Your task to perform on an android device: How do I get to the nearest Walmart? Image 0: 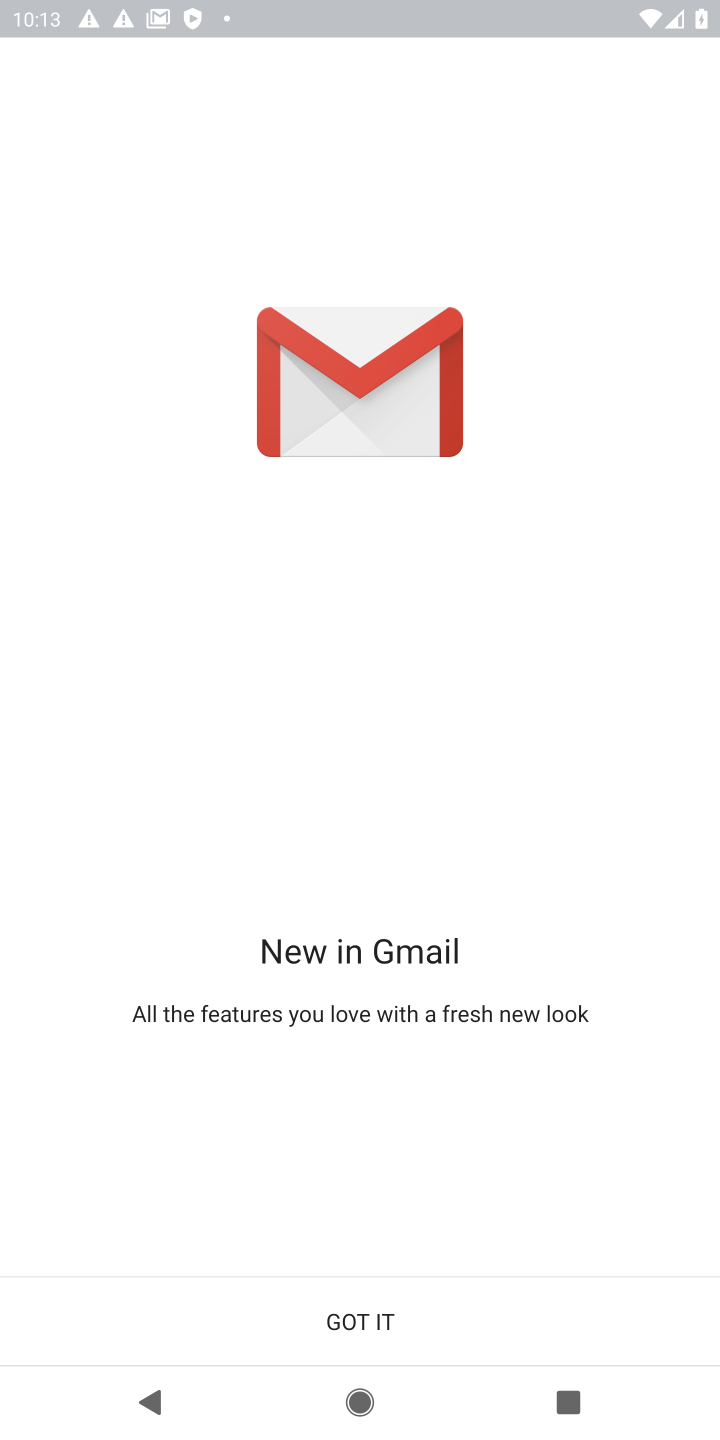
Step 0: press home button
Your task to perform on an android device: How do I get to the nearest Walmart? Image 1: 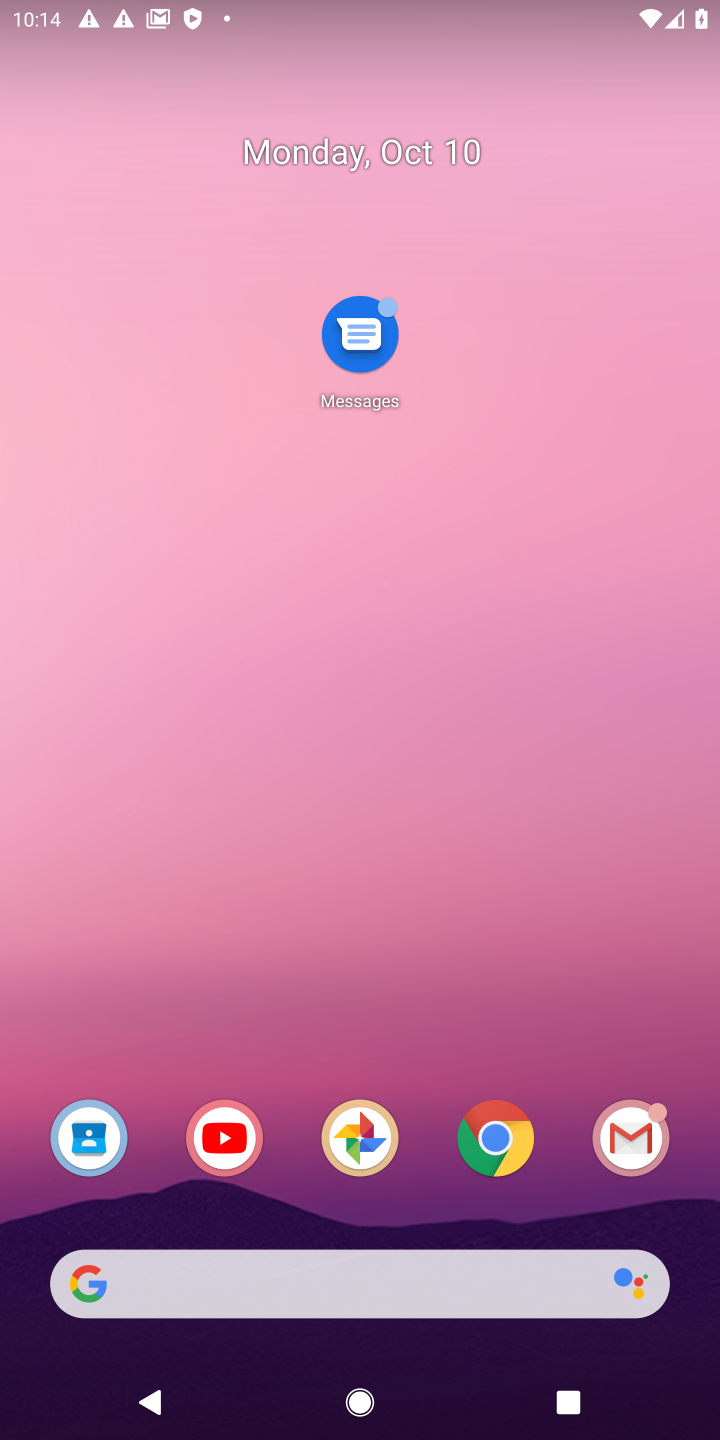
Step 1: click (530, 1151)
Your task to perform on an android device: How do I get to the nearest Walmart? Image 2: 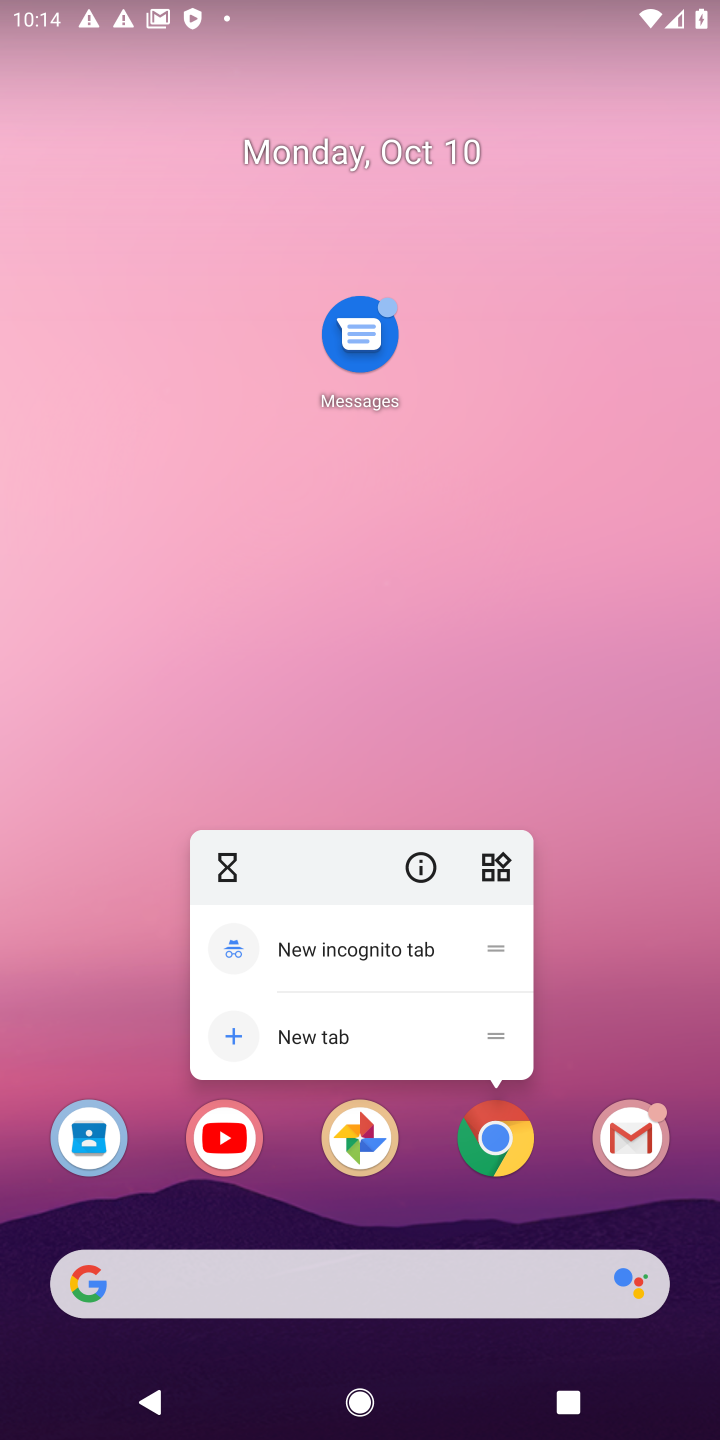
Step 2: click (502, 1135)
Your task to perform on an android device: How do I get to the nearest Walmart? Image 3: 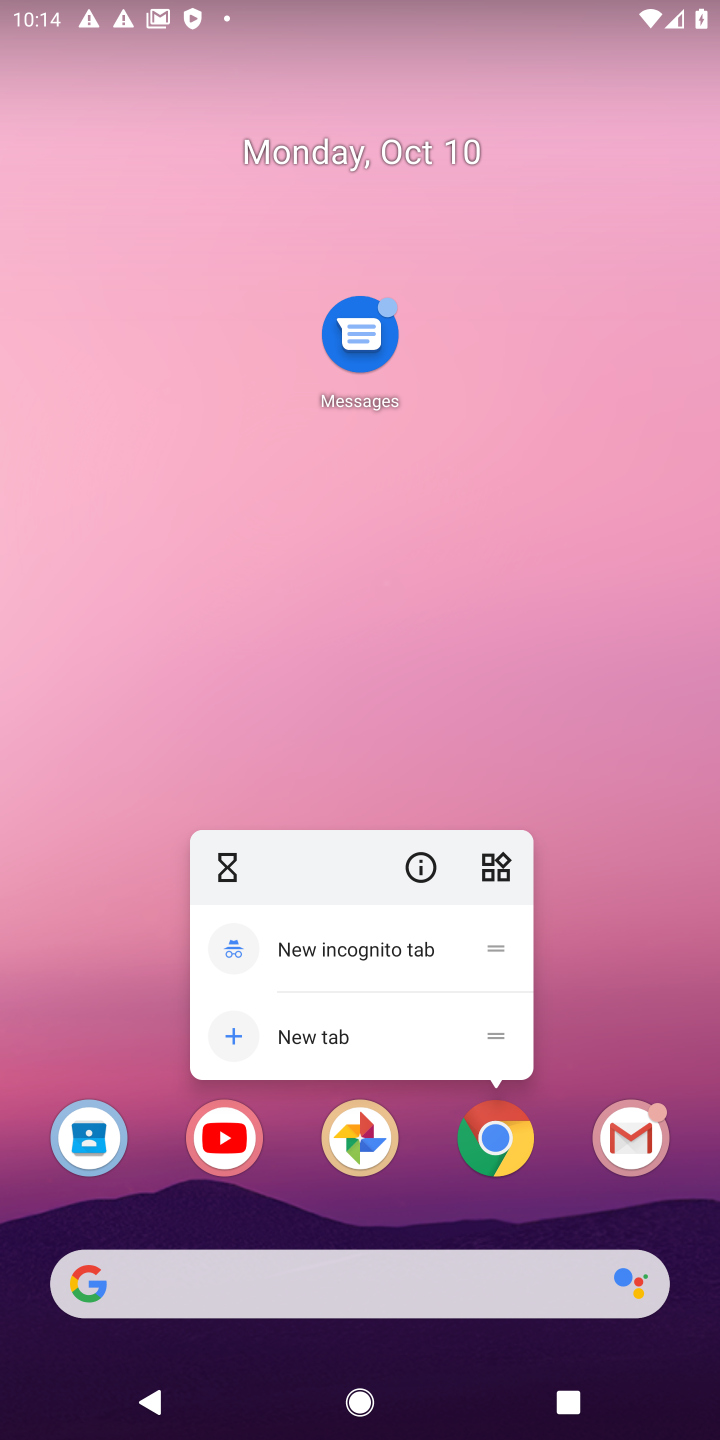
Step 3: click (496, 1152)
Your task to perform on an android device: How do I get to the nearest Walmart? Image 4: 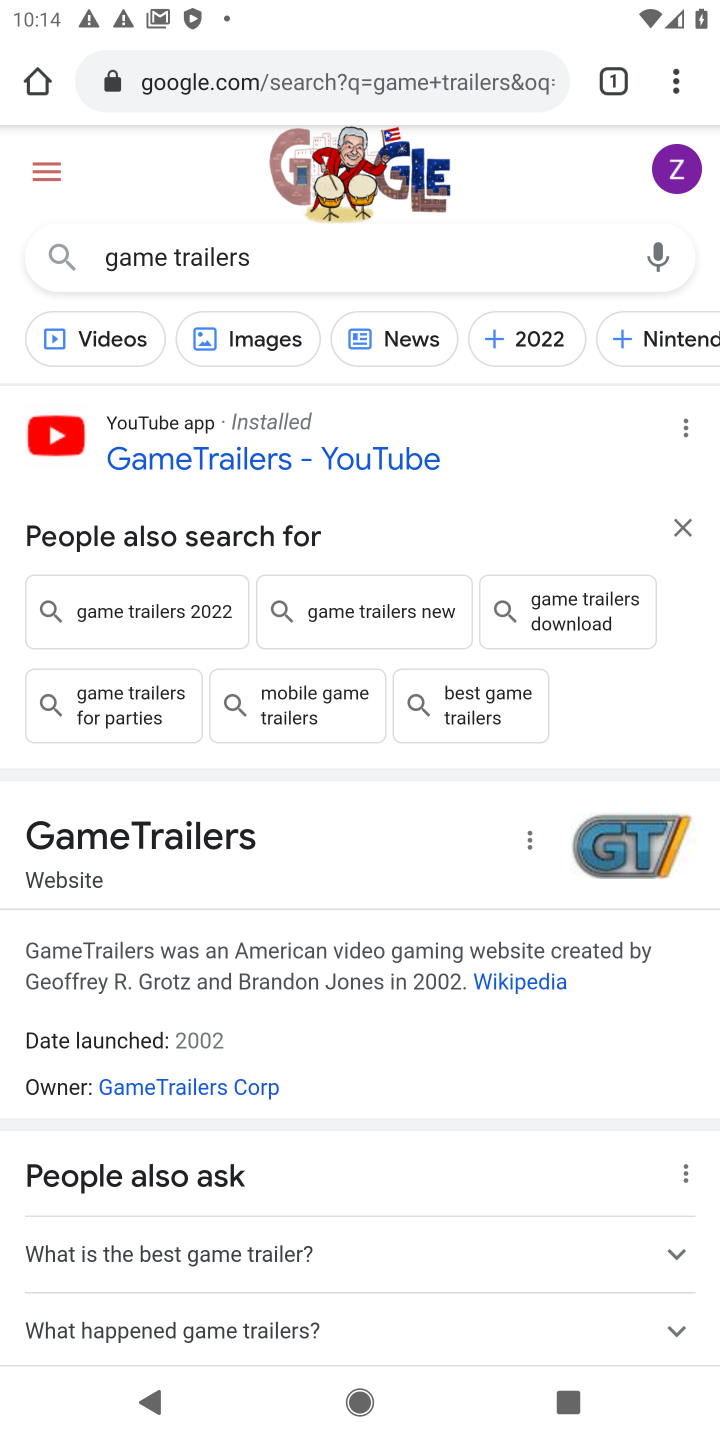
Step 4: click (353, 90)
Your task to perform on an android device: How do I get to the nearest Walmart? Image 5: 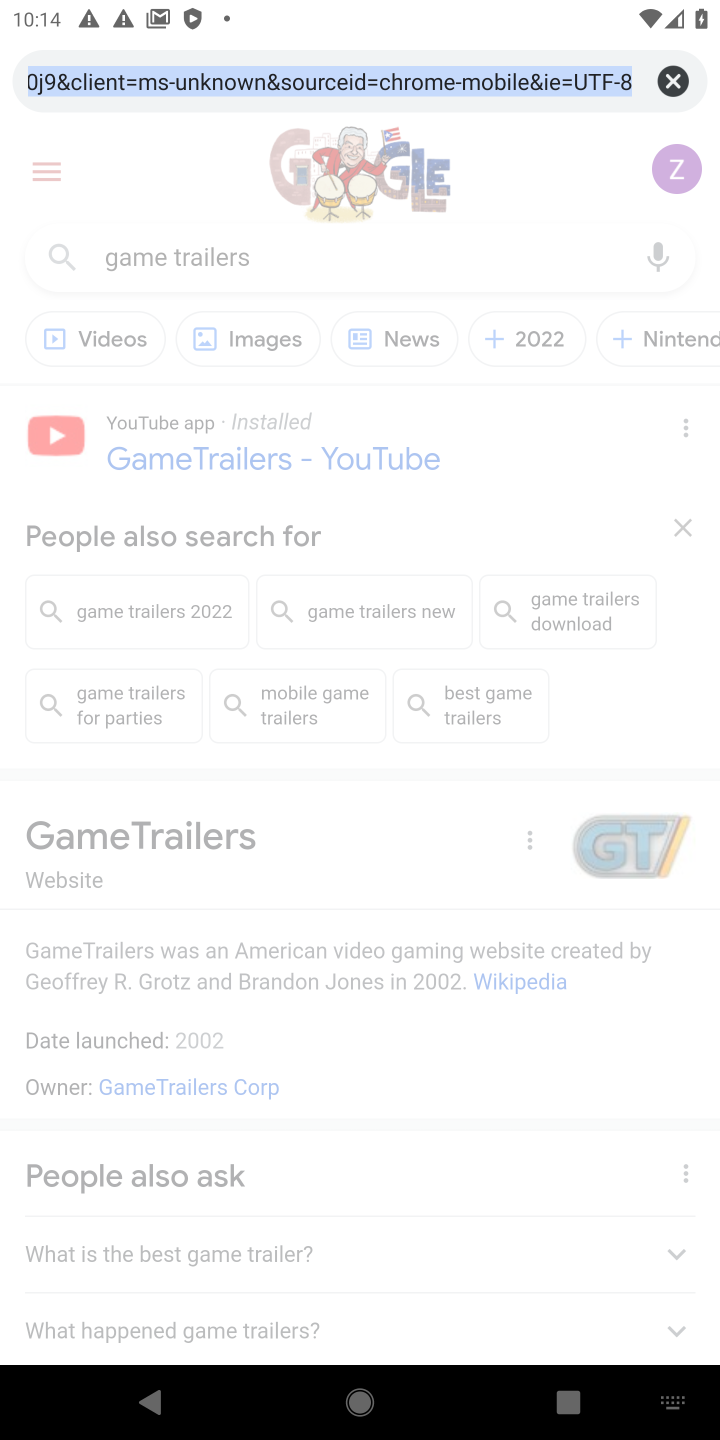
Step 5: type "nearest walmart"
Your task to perform on an android device: How do I get to the nearest Walmart? Image 6: 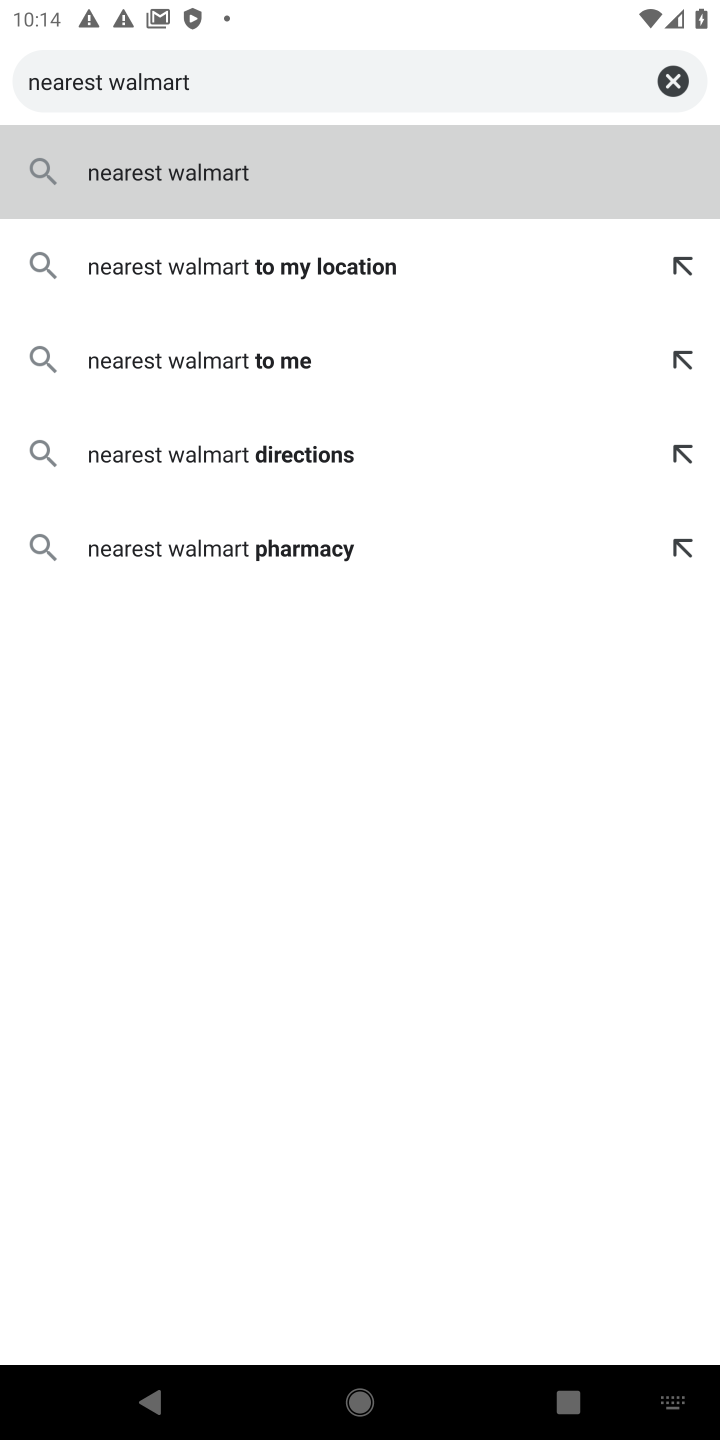
Step 6: press enter
Your task to perform on an android device: How do I get to the nearest Walmart? Image 7: 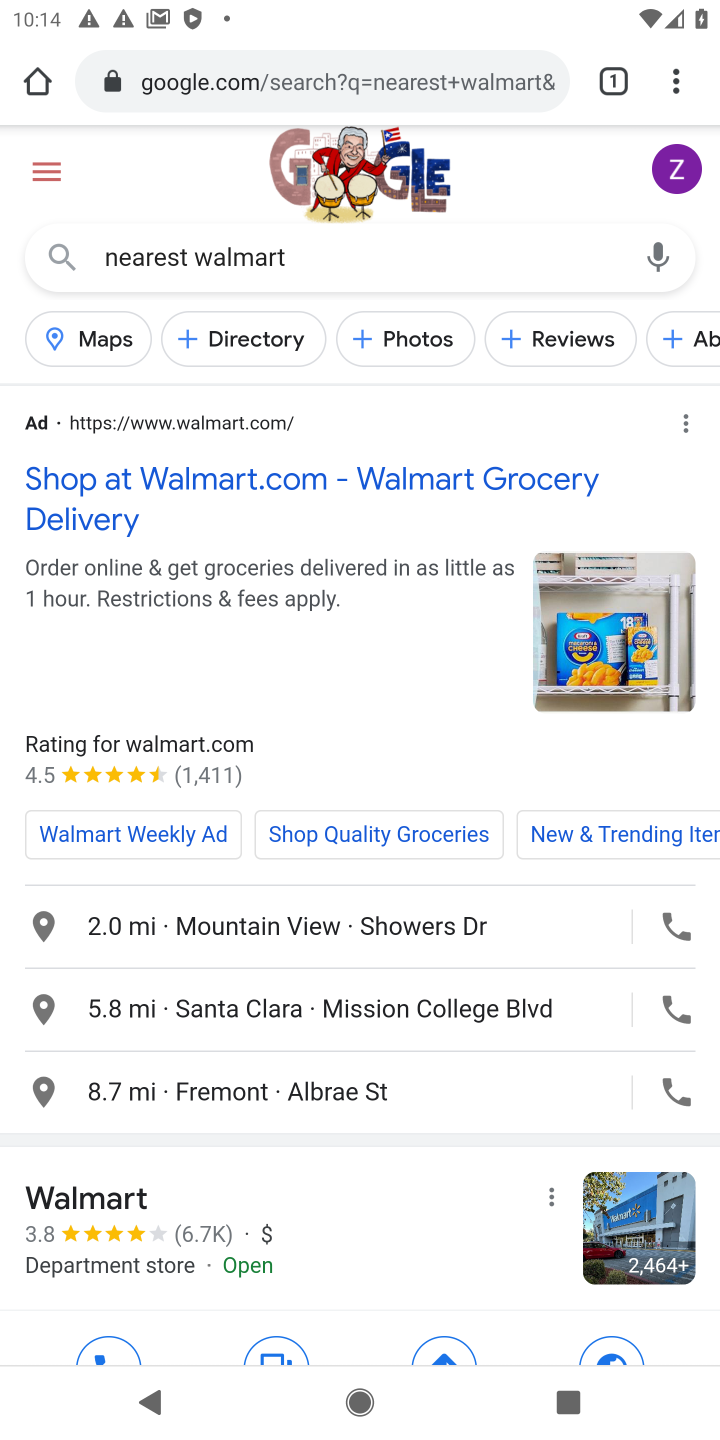
Step 7: click (345, 478)
Your task to perform on an android device: How do I get to the nearest Walmart? Image 8: 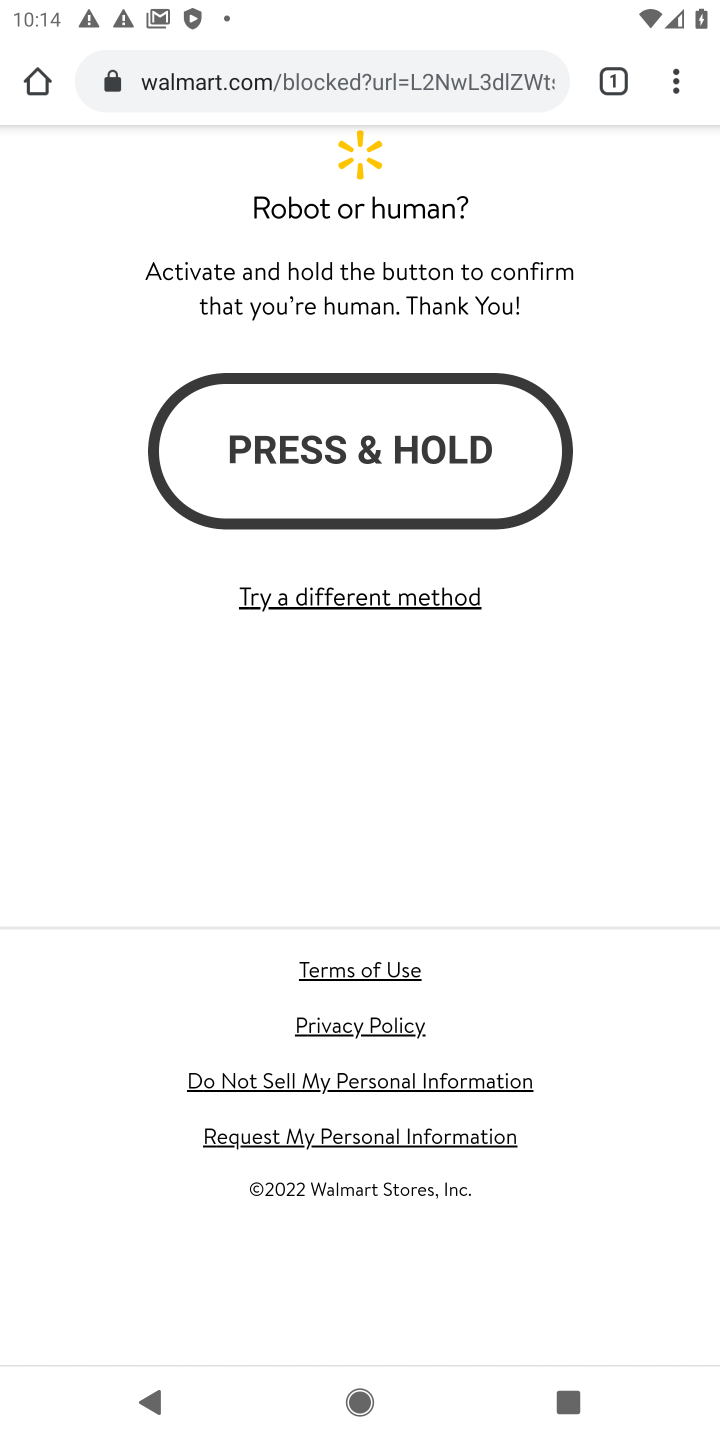
Step 8: drag from (363, 460) to (524, 403)
Your task to perform on an android device: How do I get to the nearest Walmart? Image 9: 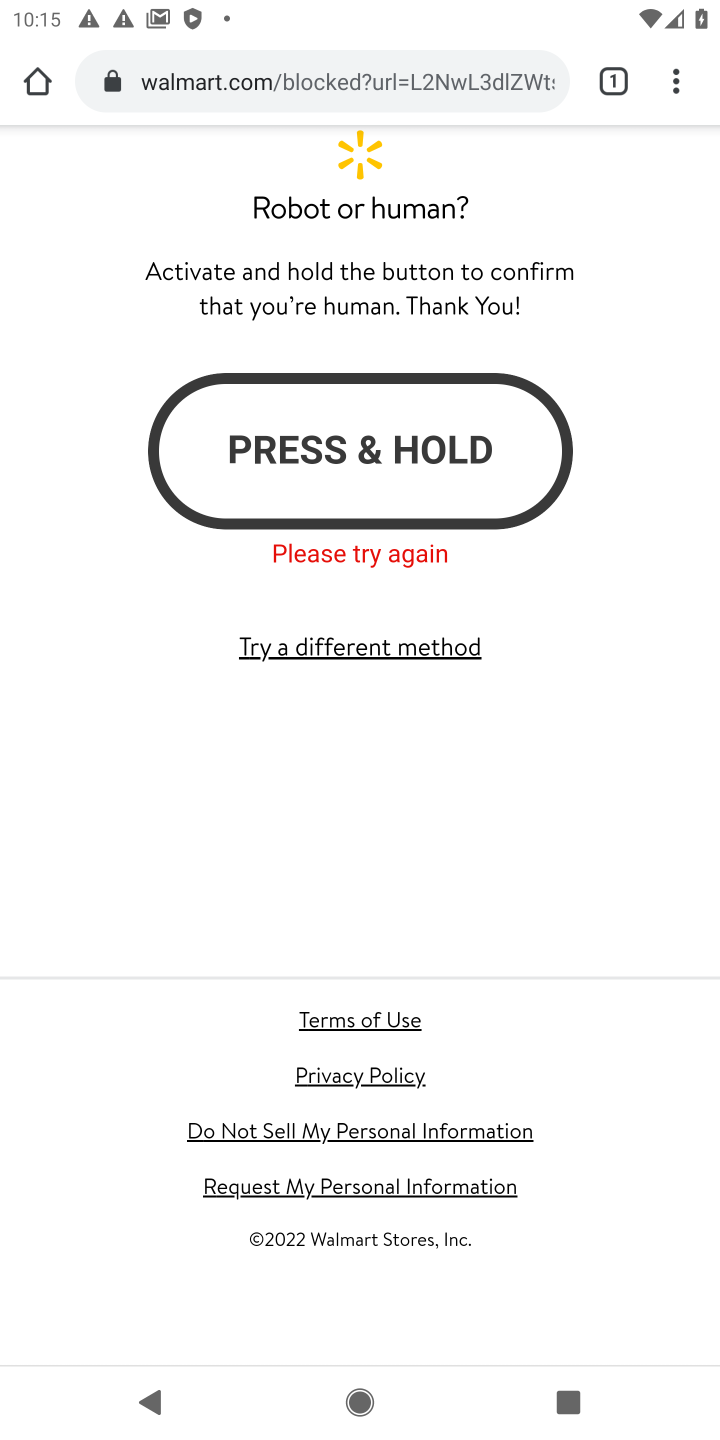
Step 9: press back button
Your task to perform on an android device: How do I get to the nearest Walmart? Image 10: 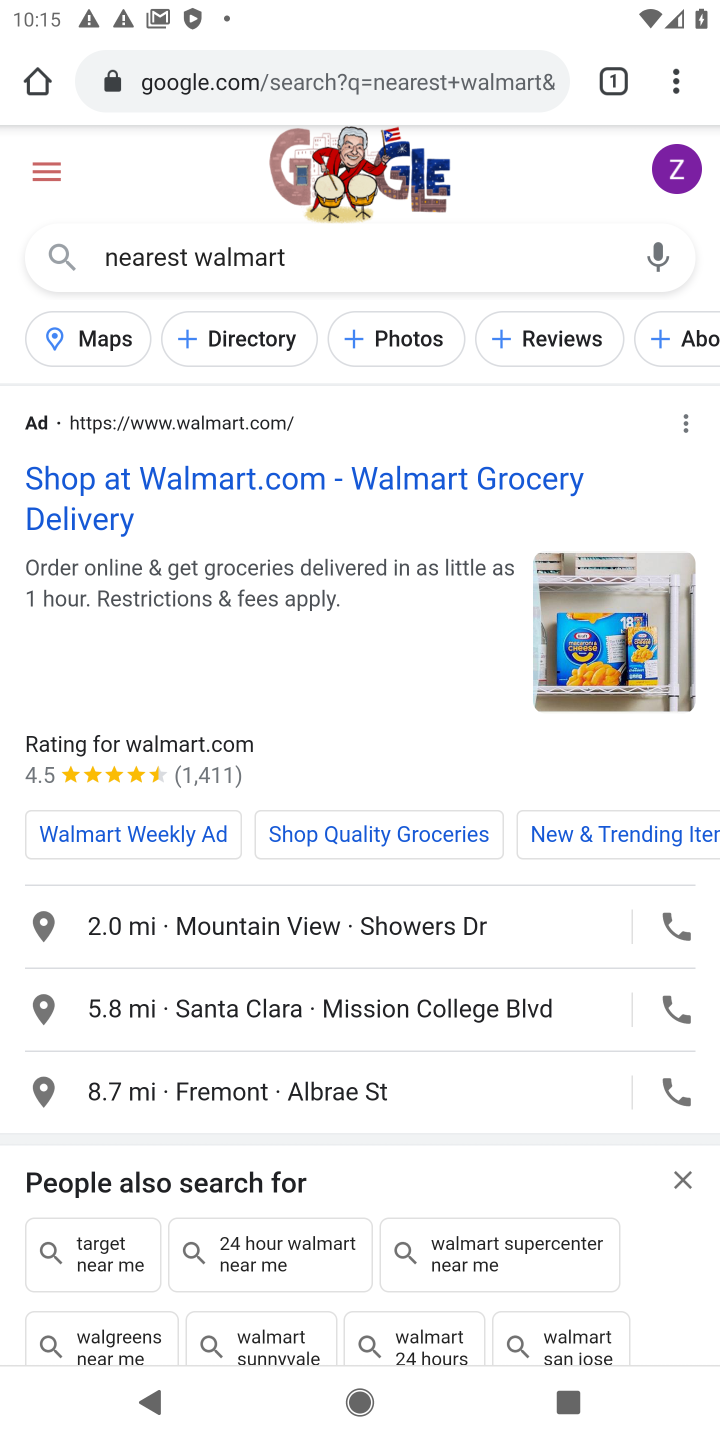
Step 10: drag from (222, 613) to (187, 0)
Your task to perform on an android device: How do I get to the nearest Walmart? Image 11: 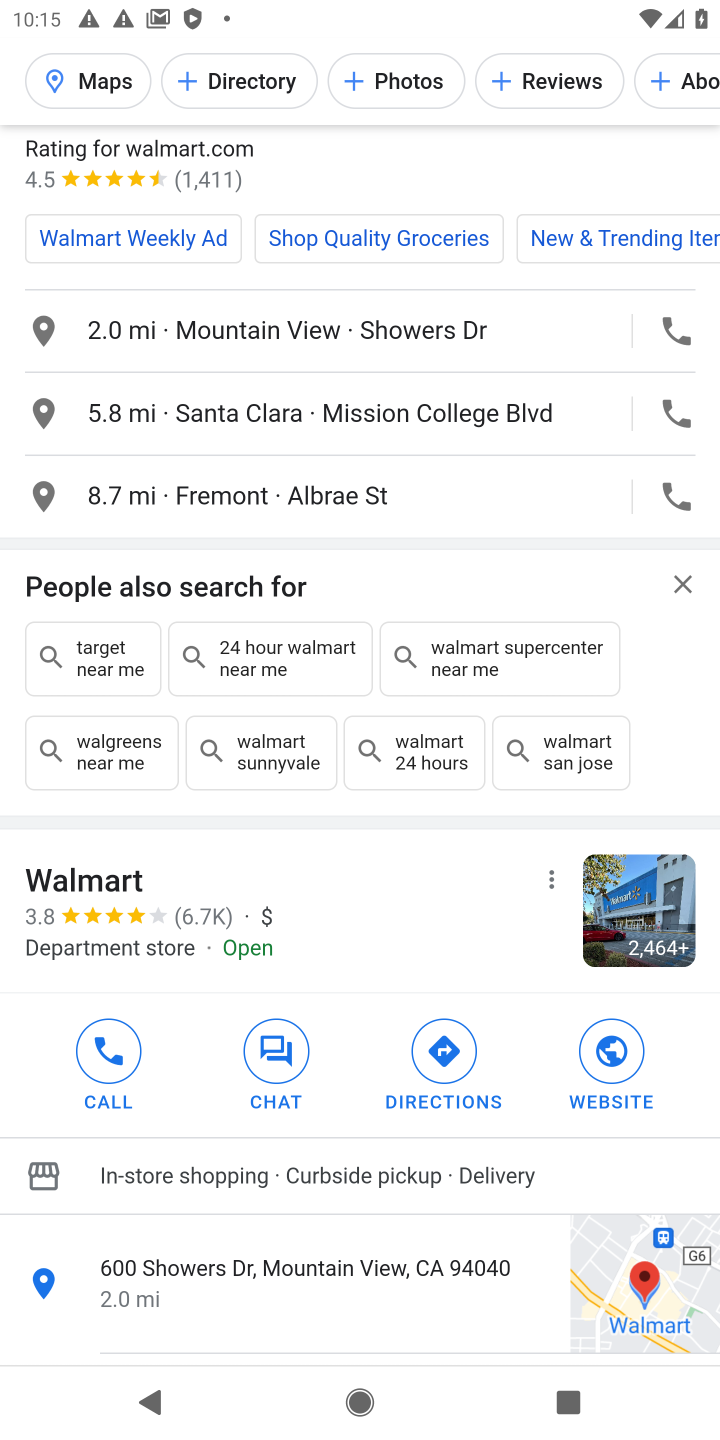
Step 11: drag from (354, 899) to (321, 12)
Your task to perform on an android device: How do I get to the nearest Walmart? Image 12: 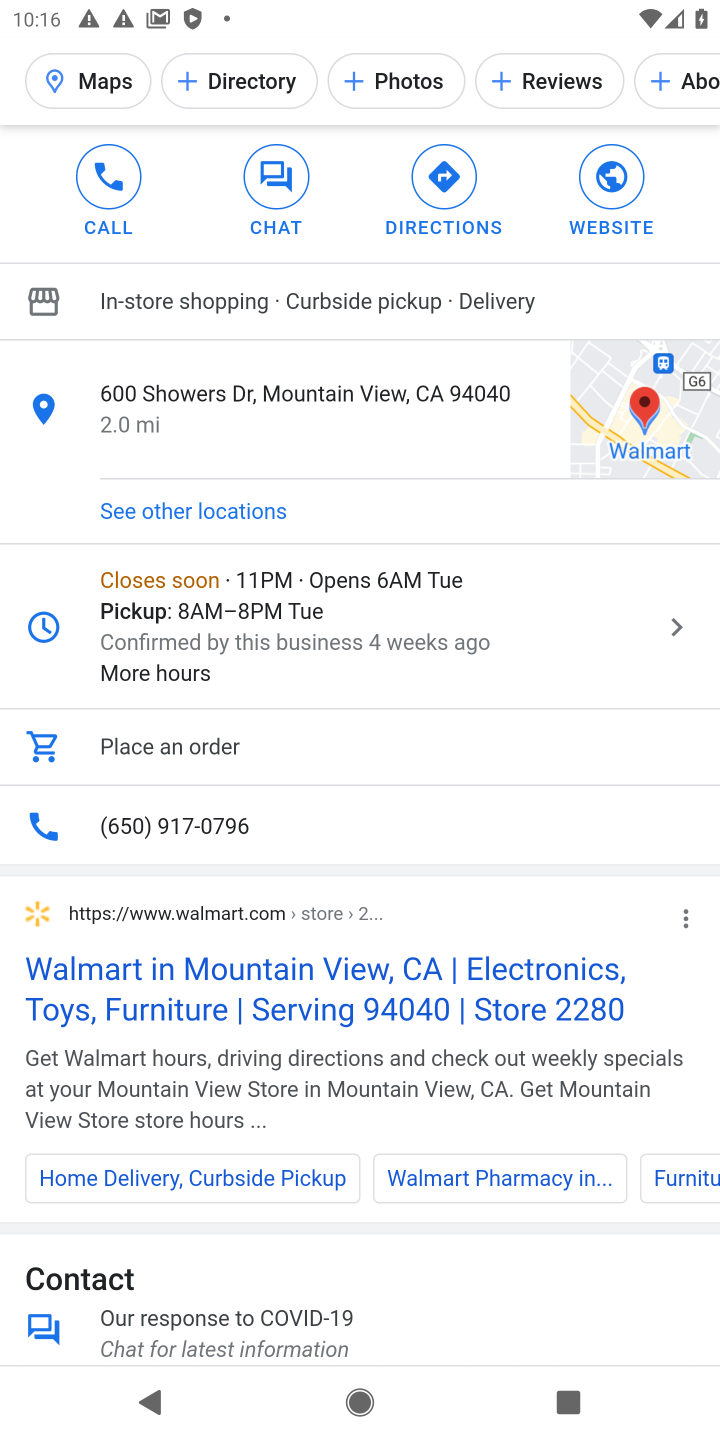
Step 12: drag from (277, 878) to (314, 478)
Your task to perform on an android device: How do I get to the nearest Walmart? Image 13: 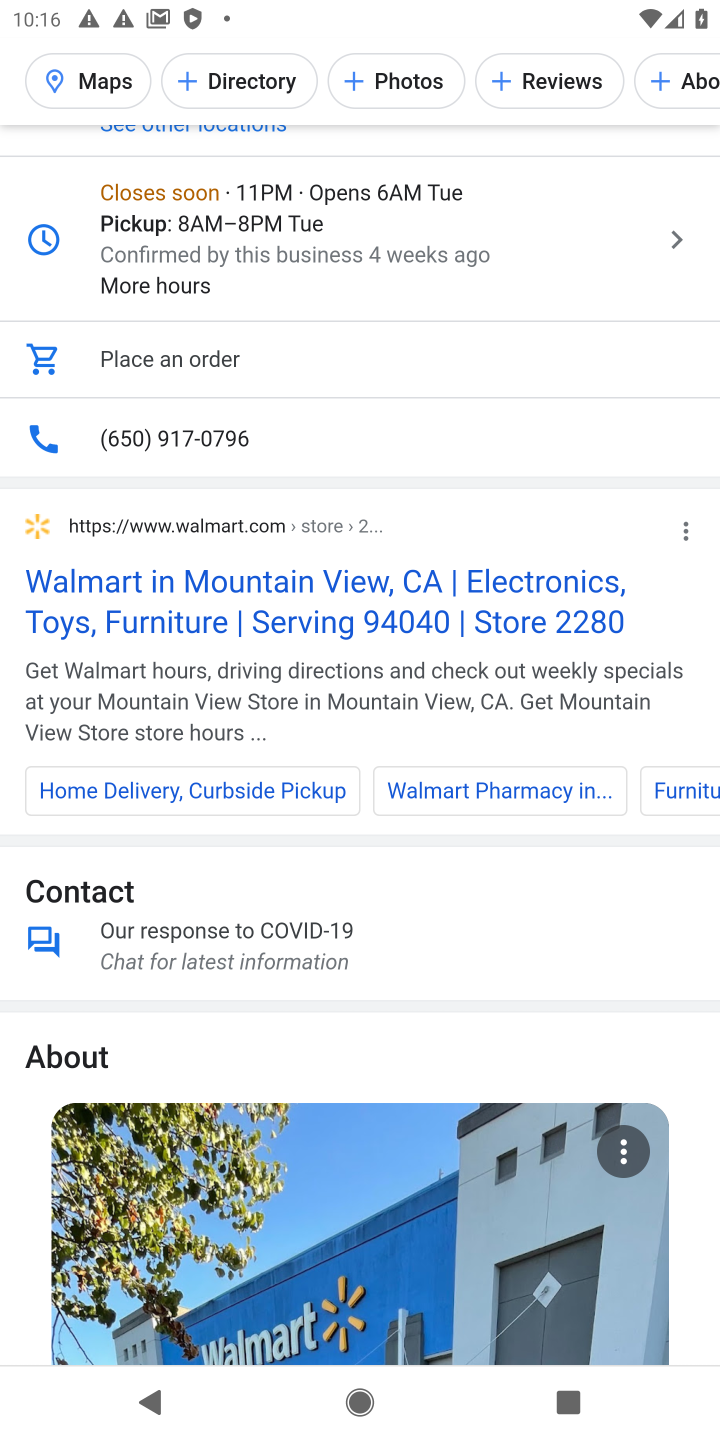
Step 13: click (359, 579)
Your task to perform on an android device: How do I get to the nearest Walmart? Image 14: 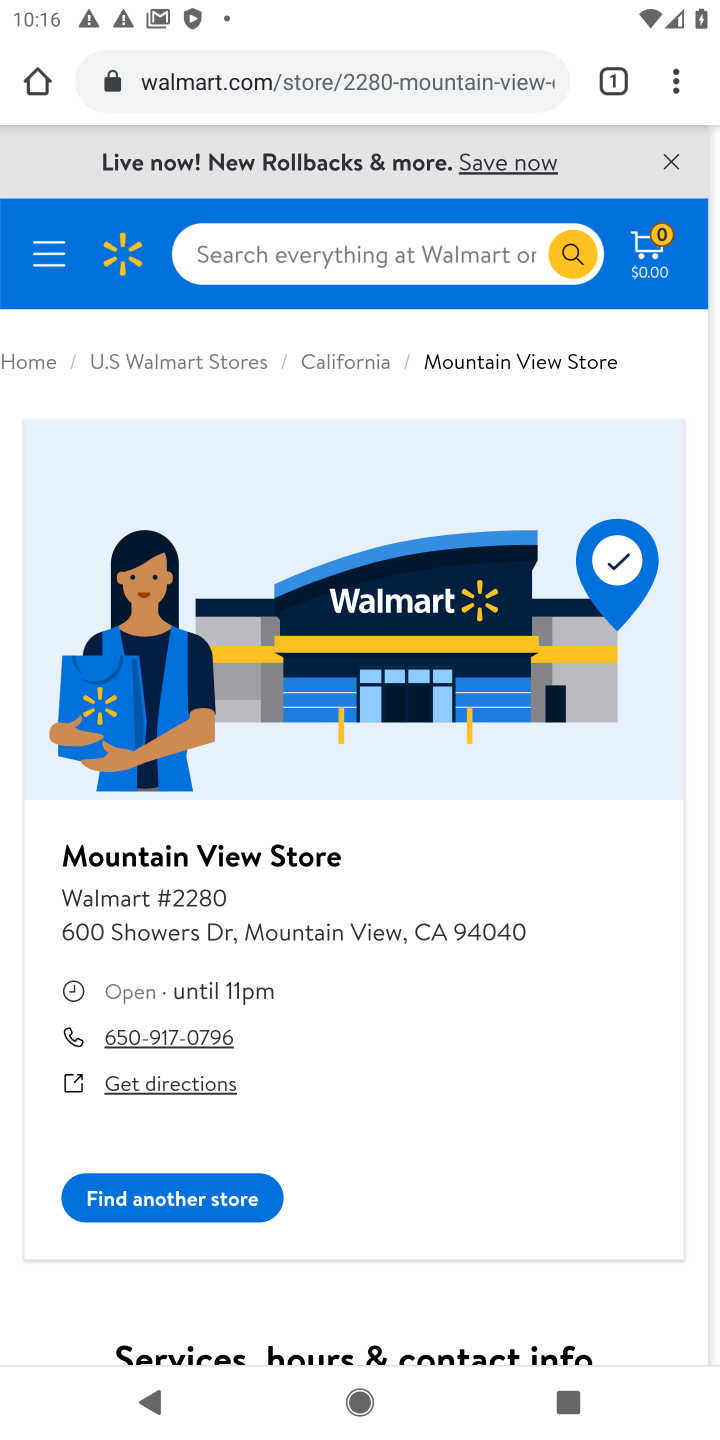
Step 14: drag from (290, 1103) to (309, 747)
Your task to perform on an android device: How do I get to the nearest Walmart? Image 15: 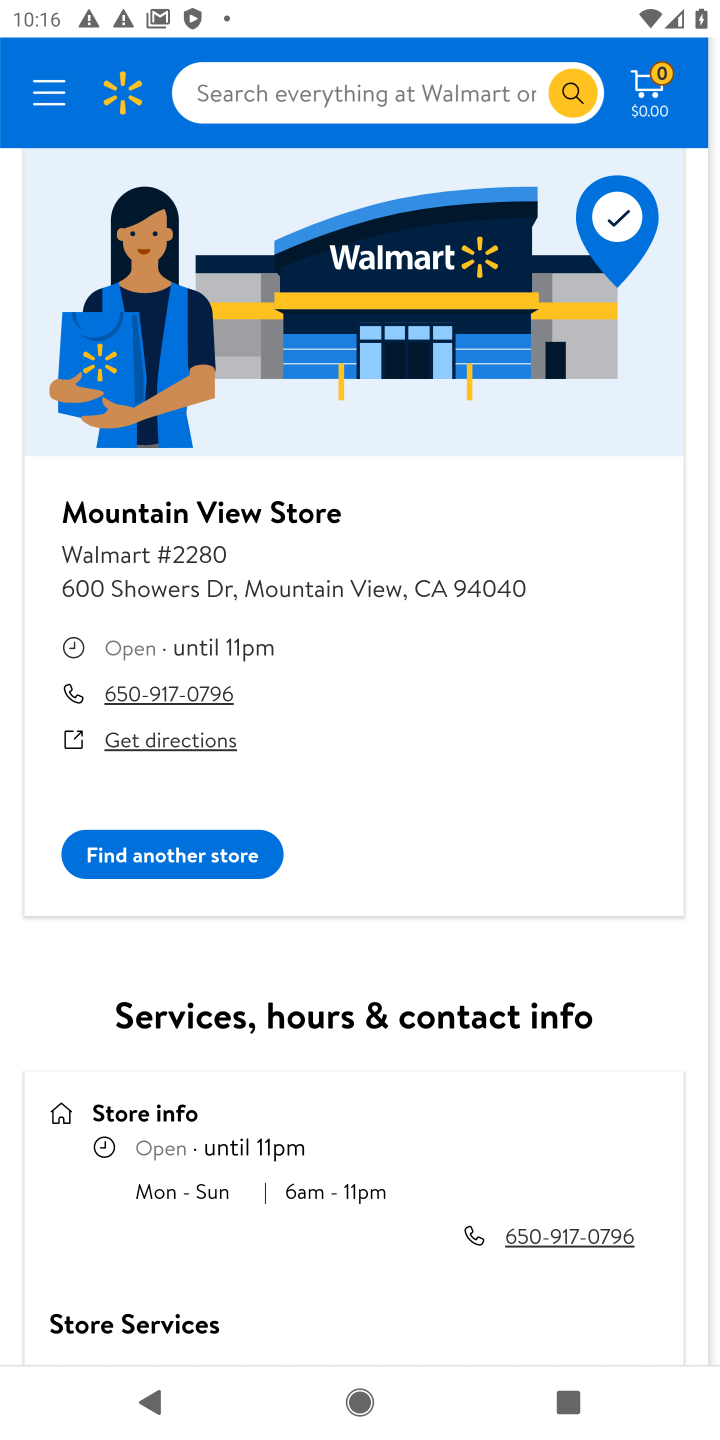
Step 15: click (199, 862)
Your task to perform on an android device: How do I get to the nearest Walmart? Image 16: 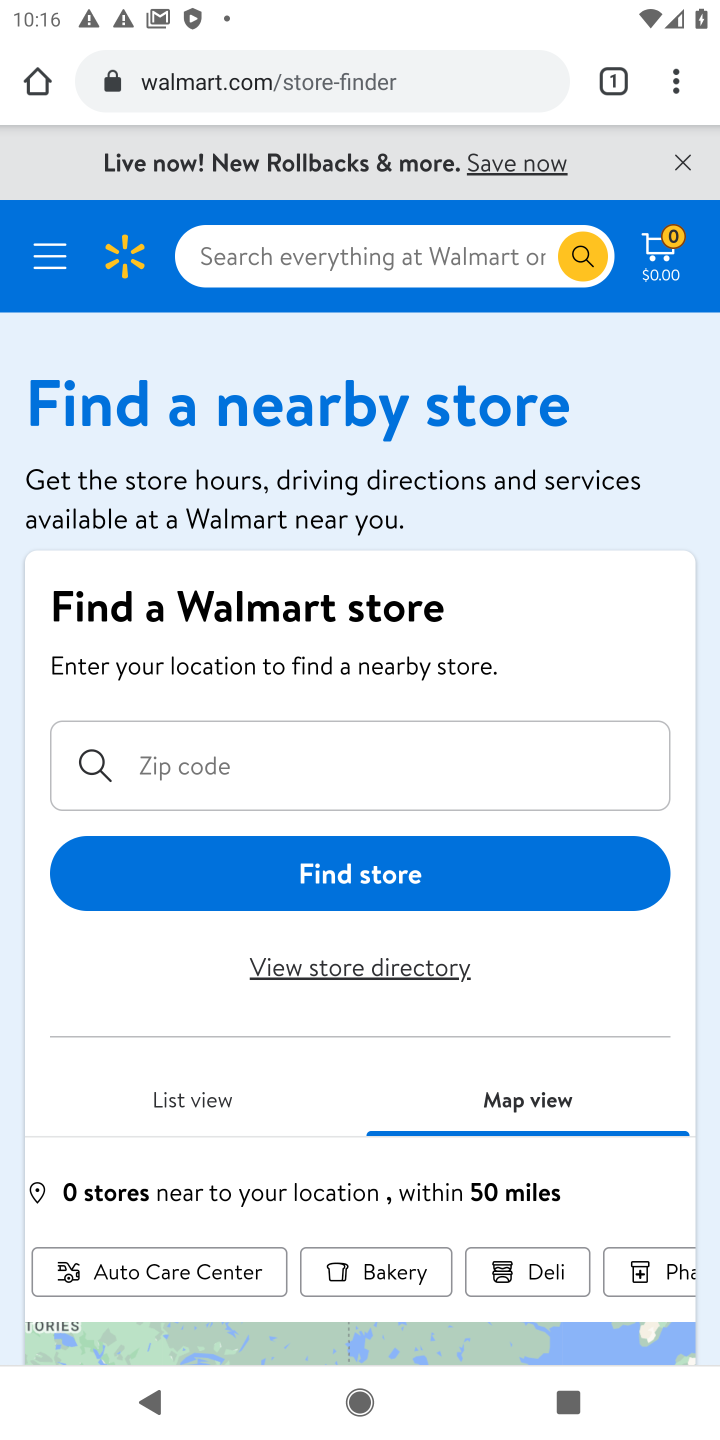
Step 16: task complete